Your task to perform on an android device: Show the shopping cart on walmart.com. Image 0: 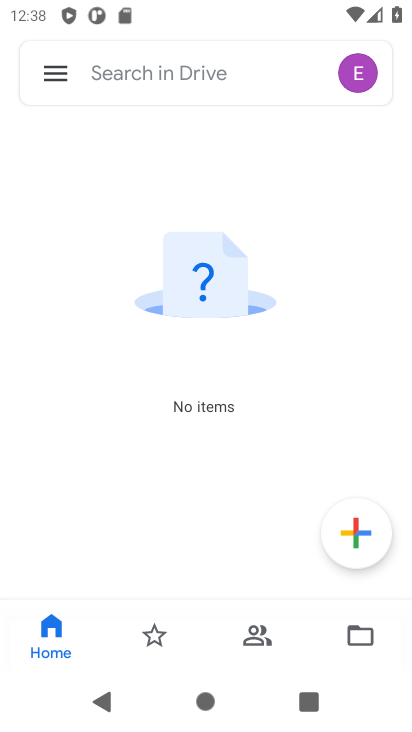
Step 0: press home button
Your task to perform on an android device: Show the shopping cart on walmart.com. Image 1: 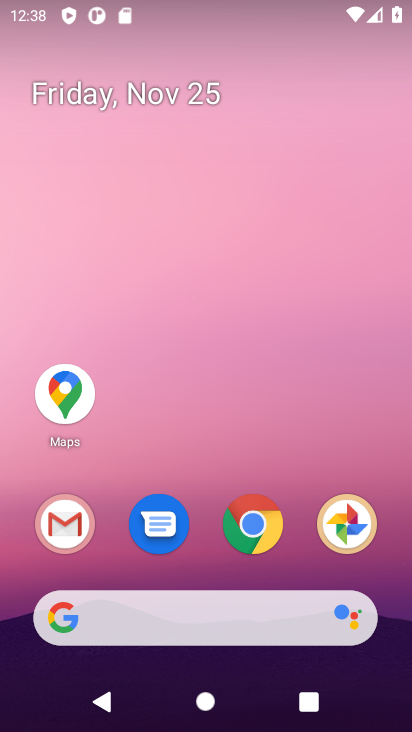
Step 1: click (255, 523)
Your task to perform on an android device: Show the shopping cart on walmart.com. Image 2: 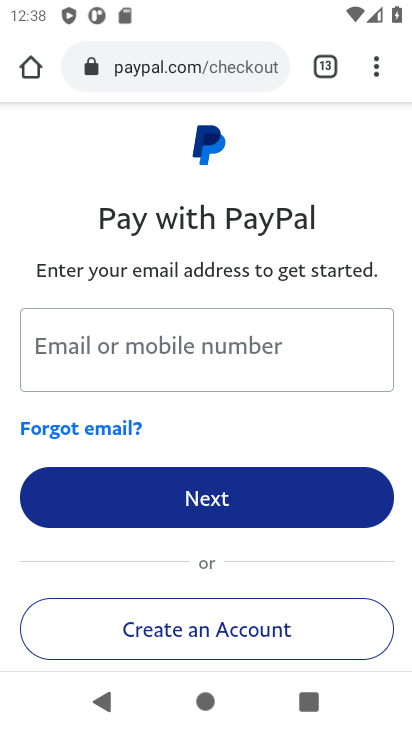
Step 2: press home button
Your task to perform on an android device: Show the shopping cart on walmart.com. Image 3: 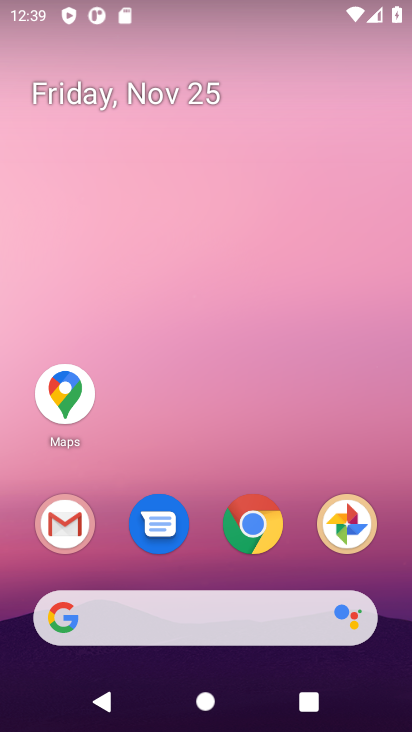
Step 3: click (254, 524)
Your task to perform on an android device: Show the shopping cart on walmart.com. Image 4: 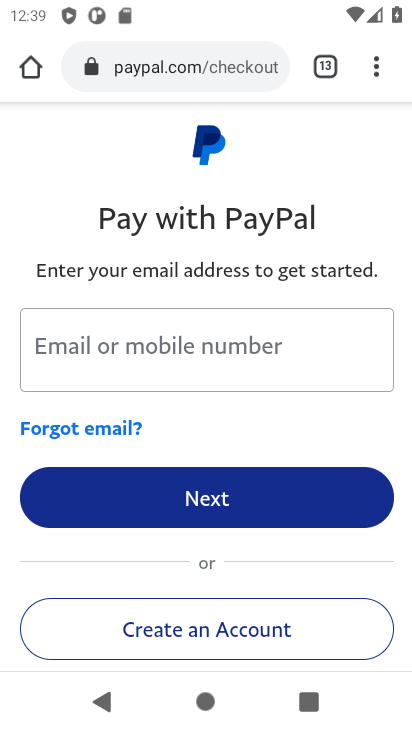
Step 4: click (169, 70)
Your task to perform on an android device: Show the shopping cart on walmart.com. Image 5: 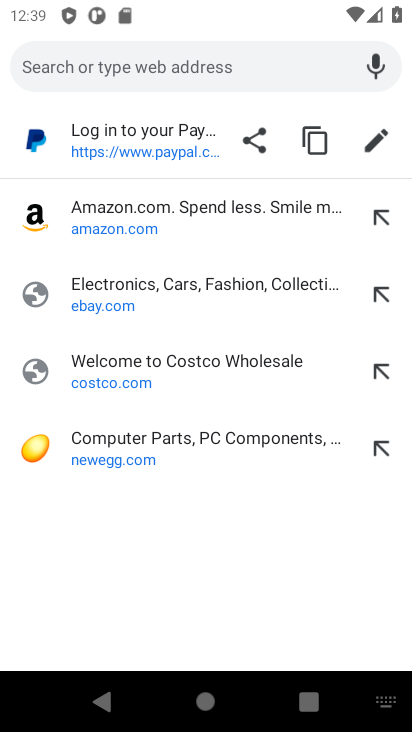
Step 5: type "walmart.com"
Your task to perform on an android device: Show the shopping cart on walmart.com. Image 6: 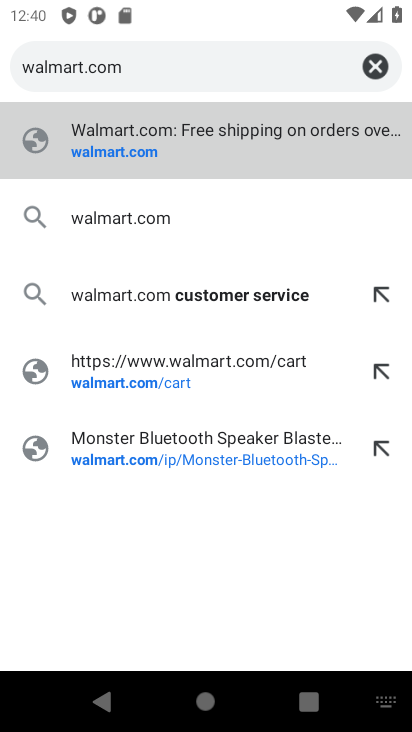
Step 6: click (107, 153)
Your task to perform on an android device: Show the shopping cart on walmart.com. Image 7: 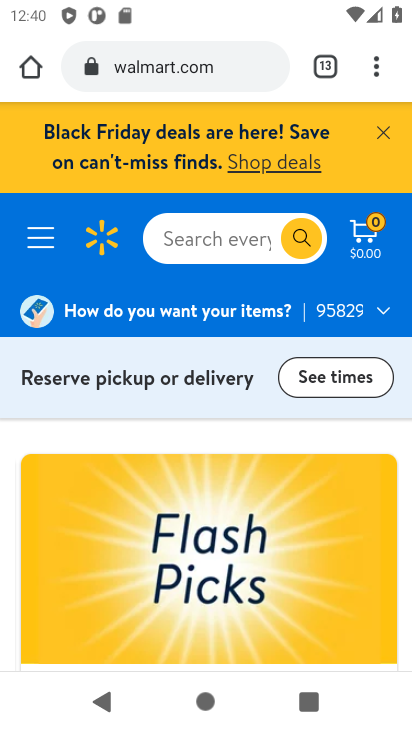
Step 7: click (364, 237)
Your task to perform on an android device: Show the shopping cart on walmart.com. Image 8: 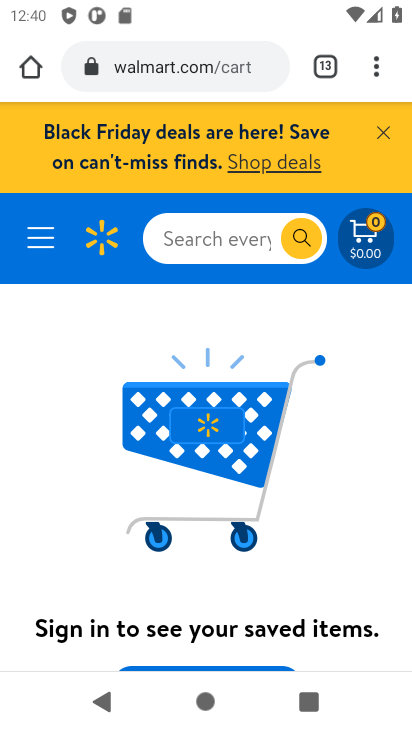
Step 8: task complete